Your task to perform on an android device: When is my next meeting? Image 0: 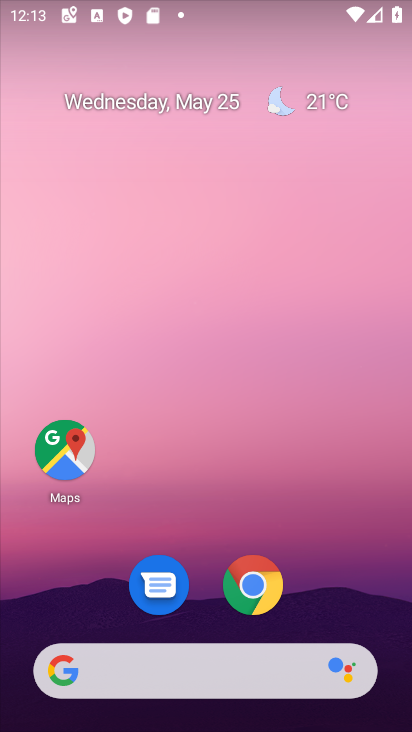
Step 0: drag from (221, 497) to (263, 17)
Your task to perform on an android device: When is my next meeting? Image 1: 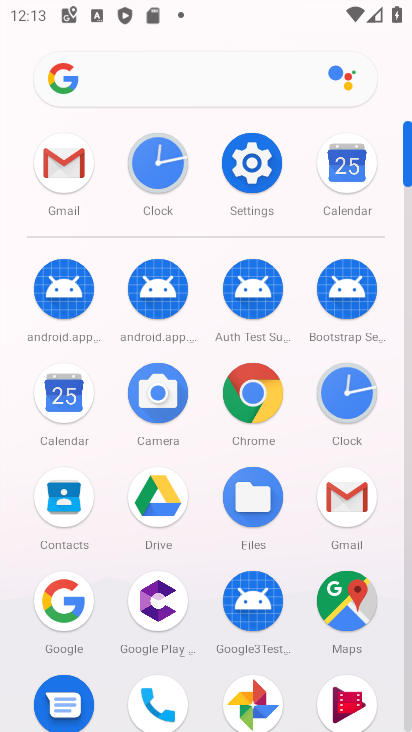
Step 1: click (338, 163)
Your task to perform on an android device: When is my next meeting? Image 2: 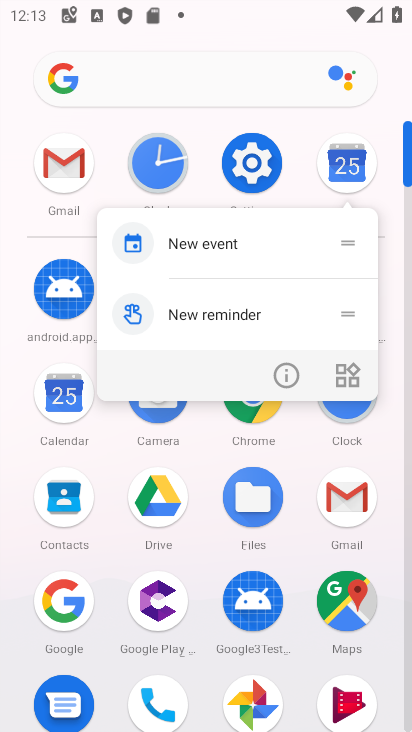
Step 2: click (352, 150)
Your task to perform on an android device: When is my next meeting? Image 3: 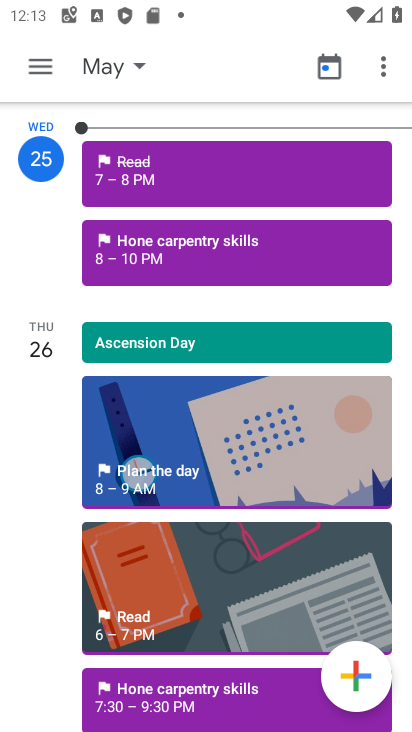
Step 3: task complete